Your task to perform on an android device: turn off translation in the chrome app Image 0: 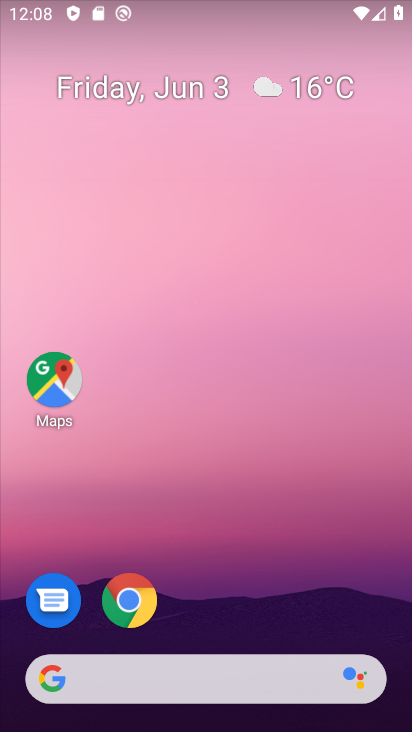
Step 0: click (129, 602)
Your task to perform on an android device: turn off translation in the chrome app Image 1: 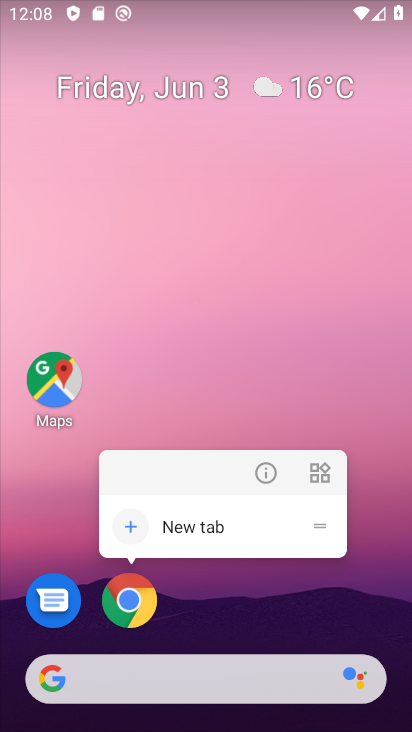
Step 1: click (128, 603)
Your task to perform on an android device: turn off translation in the chrome app Image 2: 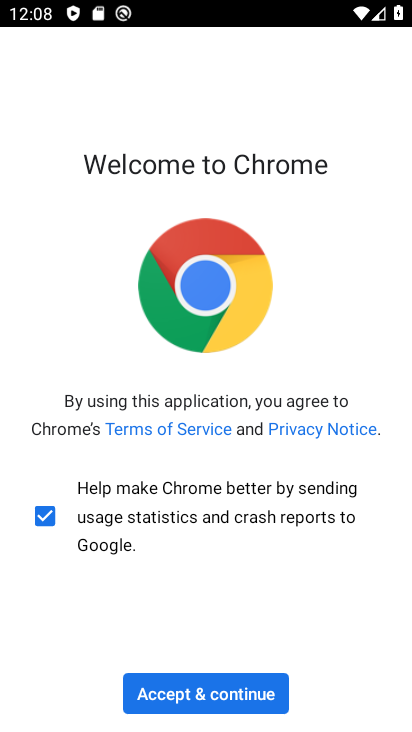
Step 2: click (171, 684)
Your task to perform on an android device: turn off translation in the chrome app Image 3: 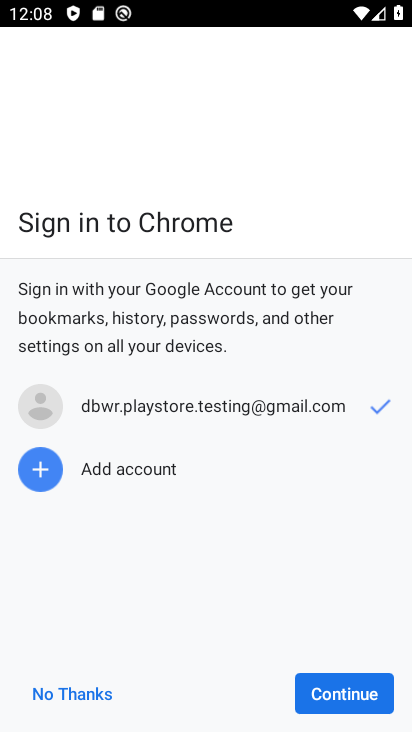
Step 3: click (373, 702)
Your task to perform on an android device: turn off translation in the chrome app Image 4: 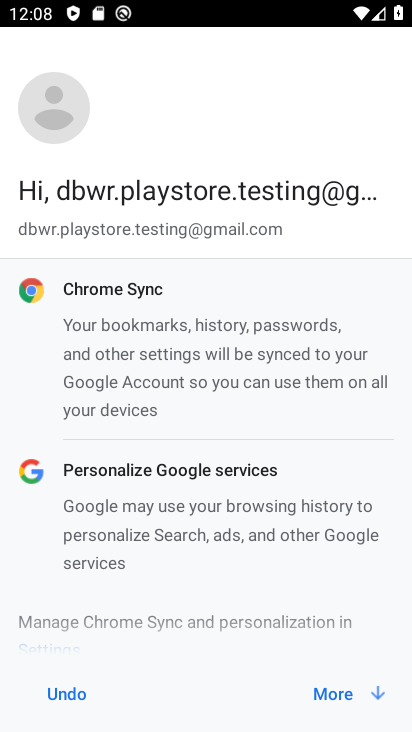
Step 4: click (341, 699)
Your task to perform on an android device: turn off translation in the chrome app Image 5: 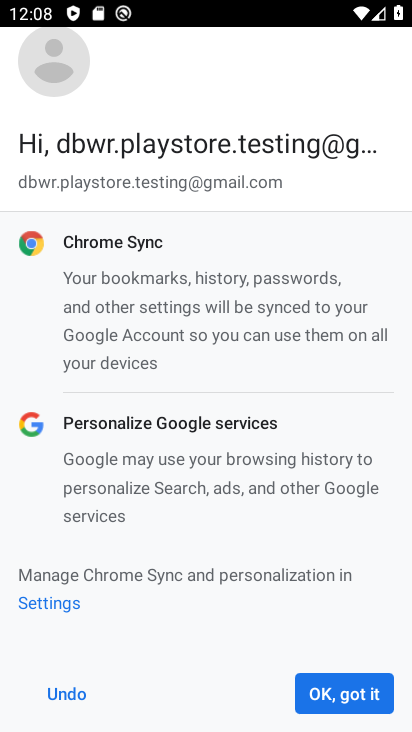
Step 5: click (341, 699)
Your task to perform on an android device: turn off translation in the chrome app Image 6: 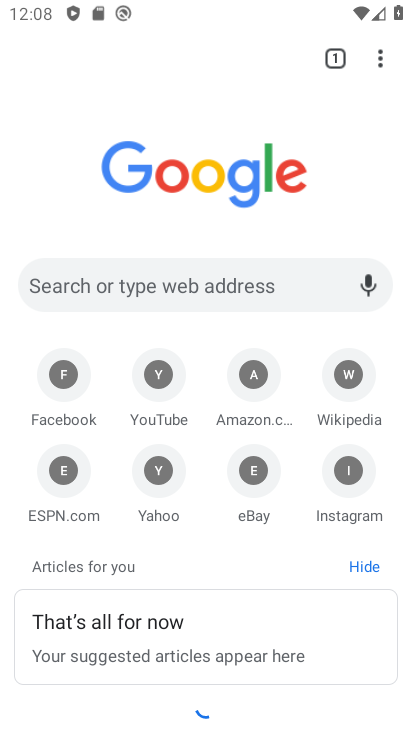
Step 6: drag from (385, 53) to (260, 506)
Your task to perform on an android device: turn off translation in the chrome app Image 7: 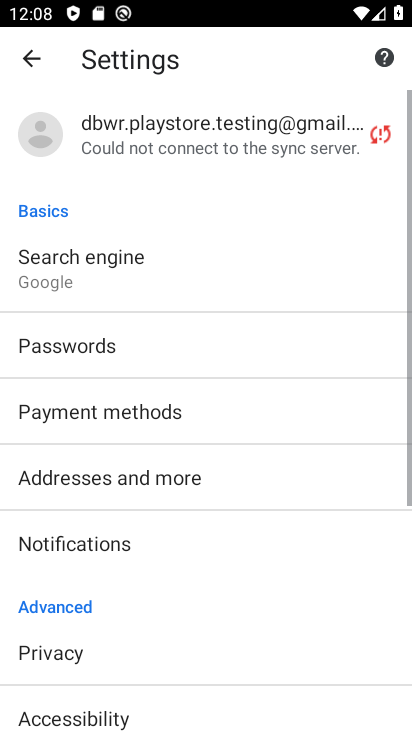
Step 7: drag from (236, 630) to (240, 303)
Your task to perform on an android device: turn off translation in the chrome app Image 8: 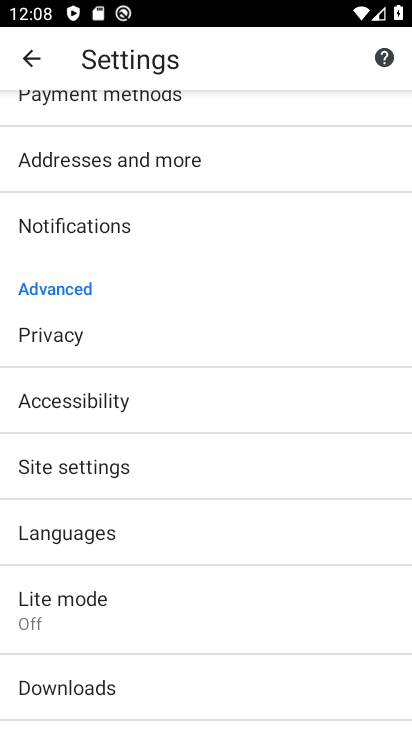
Step 8: drag from (146, 663) to (237, 323)
Your task to perform on an android device: turn off translation in the chrome app Image 9: 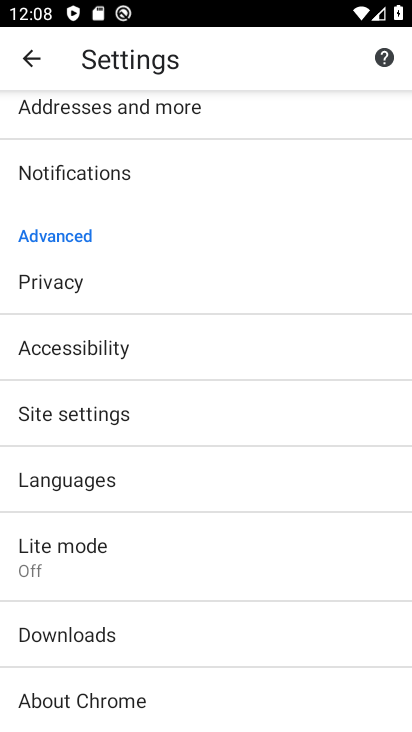
Step 9: click (90, 483)
Your task to perform on an android device: turn off translation in the chrome app Image 10: 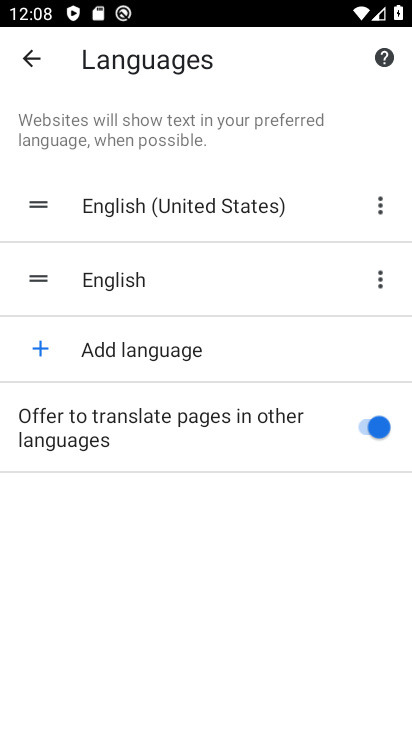
Step 10: click (351, 437)
Your task to perform on an android device: turn off translation in the chrome app Image 11: 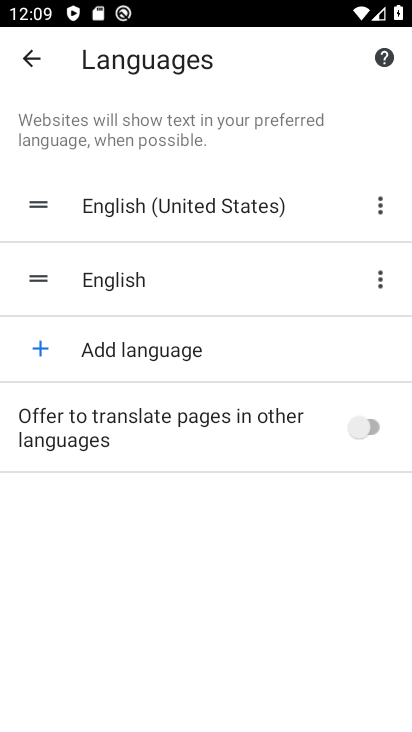
Step 11: task complete